Your task to perform on an android device: Open Reddit.com Image 0: 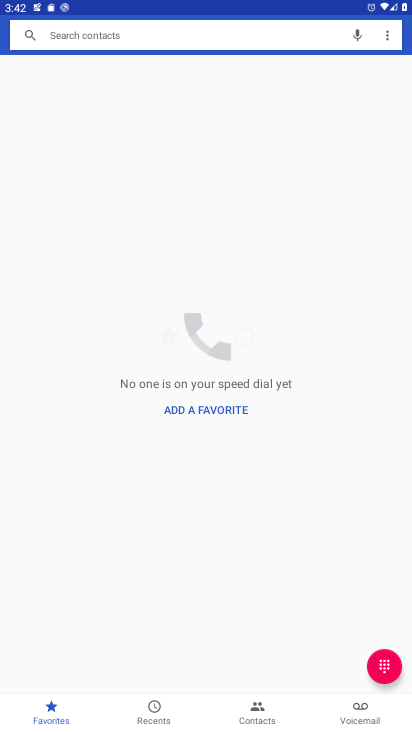
Step 0: press home button
Your task to perform on an android device: Open Reddit.com Image 1: 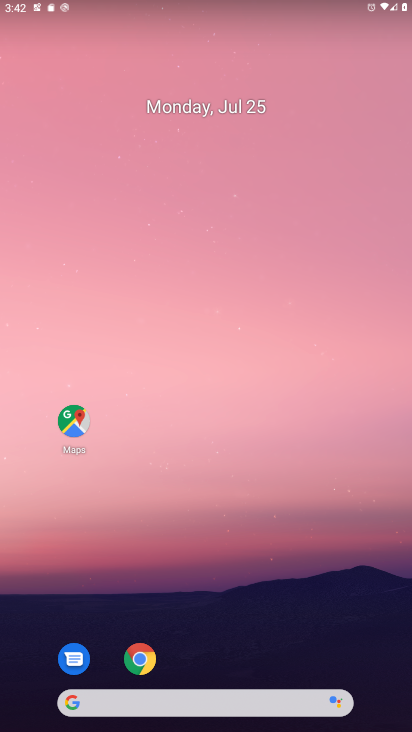
Step 1: click (141, 661)
Your task to perform on an android device: Open Reddit.com Image 2: 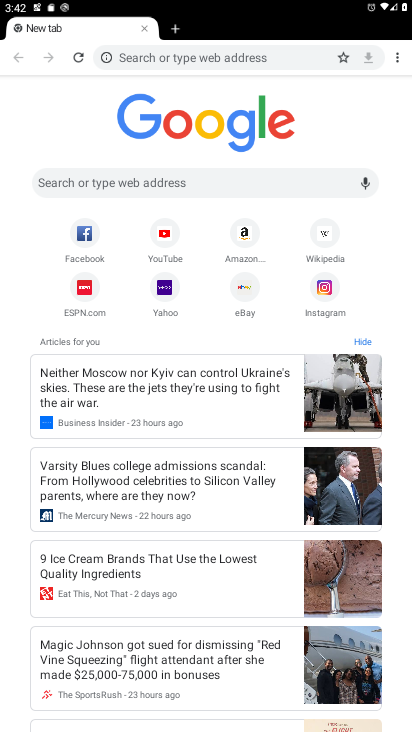
Step 2: click (133, 177)
Your task to perform on an android device: Open Reddit.com Image 3: 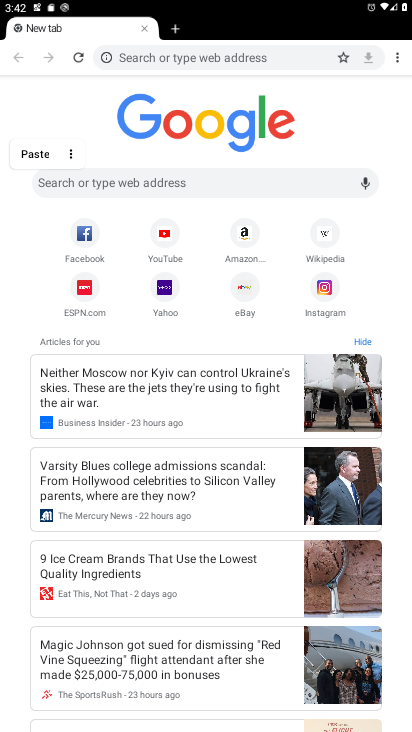
Step 3: click (175, 55)
Your task to perform on an android device: Open Reddit.com Image 4: 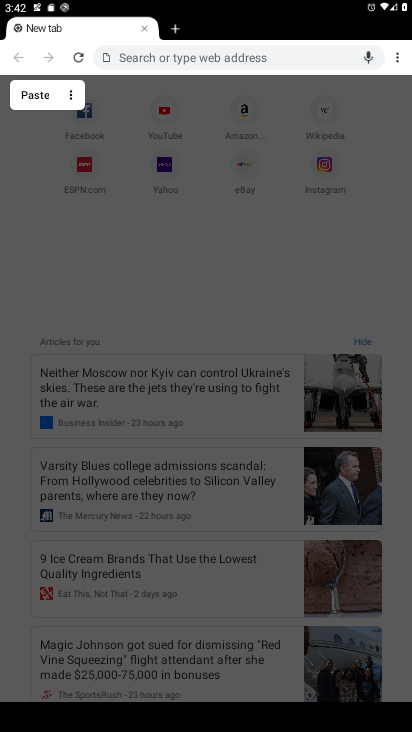
Step 4: type "www.reddit.com"
Your task to perform on an android device: Open Reddit.com Image 5: 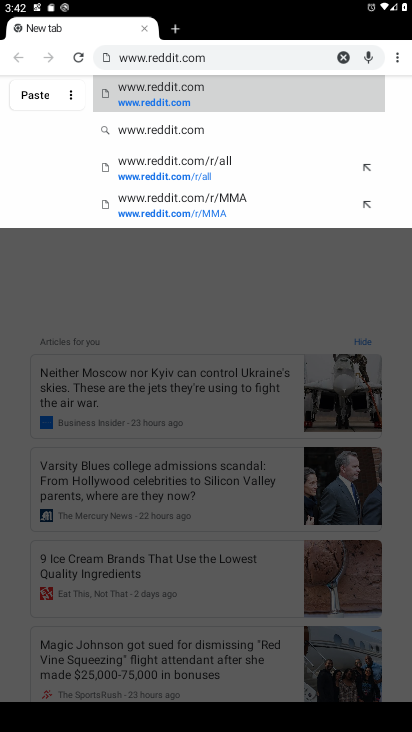
Step 5: click (145, 97)
Your task to perform on an android device: Open Reddit.com Image 6: 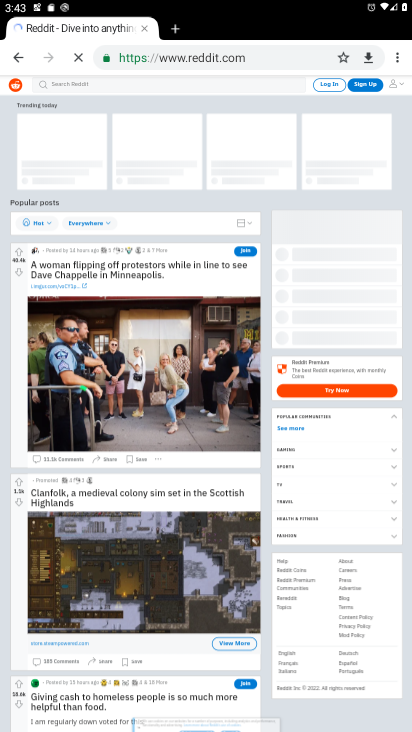
Step 6: task complete